Your task to perform on an android device: Open the web browser Image 0: 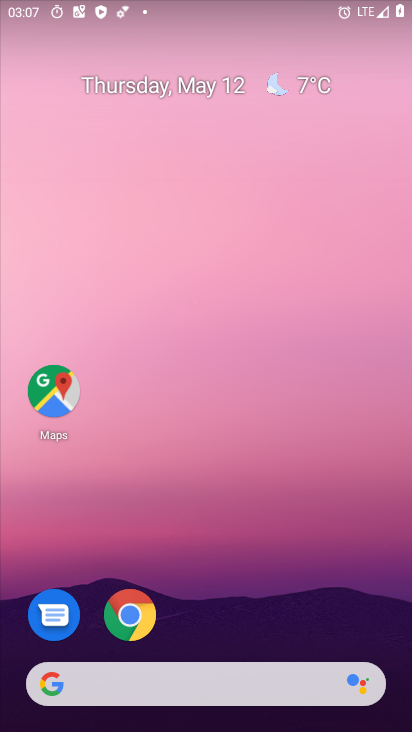
Step 0: drag from (218, 661) to (218, 116)
Your task to perform on an android device: Open the web browser Image 1: 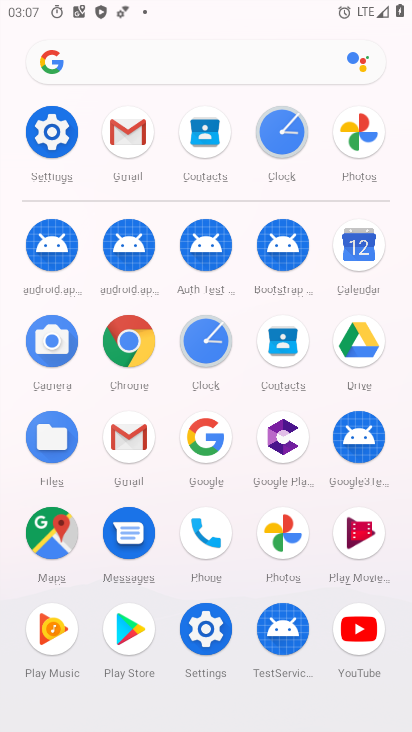
Step 1: click (126, 336)
Your task to perform on an android device: Open the web browser Image 2: 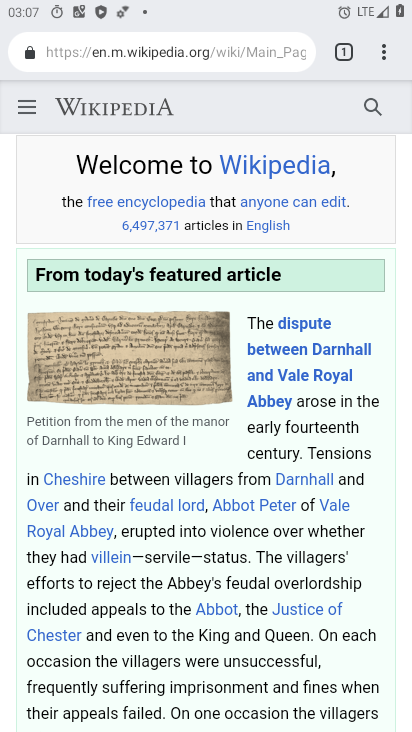
Step 2: task complete